Your task to perform on an android device: check google app version Image 0: 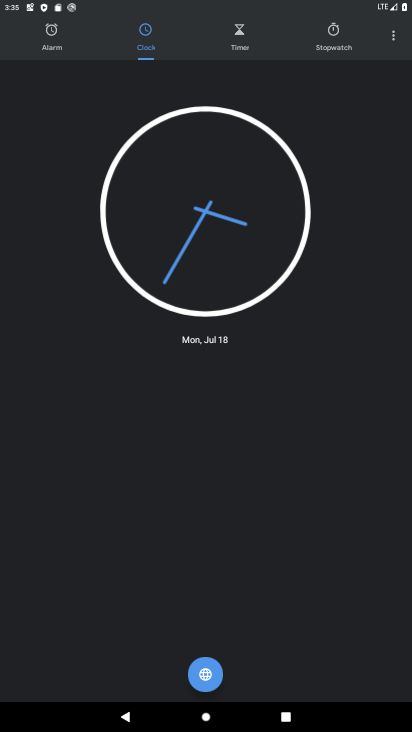
Step 0: press home button
Your task to perform on an android device: check google app version Image 1: 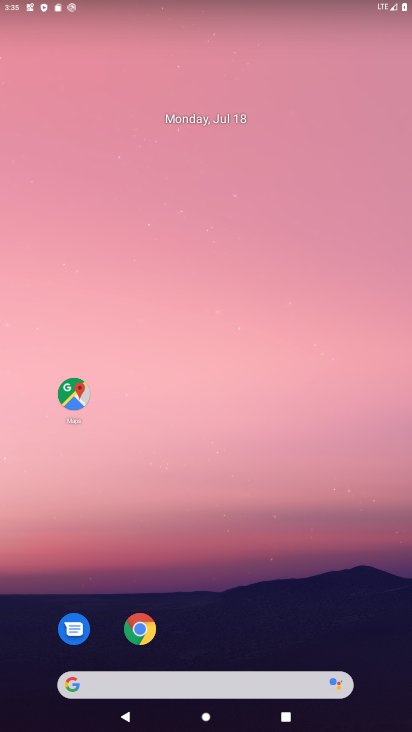
Step 1: drag from (212, 632) to (217, 161)
Your task to perform on an android device: check google app version Image 2: 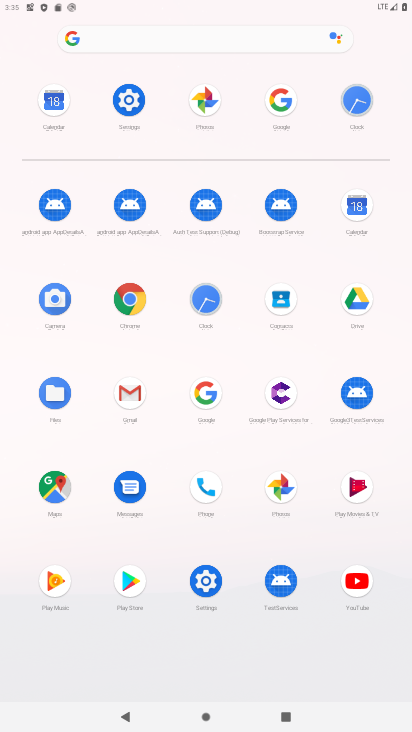
Step 2: click (280, 116)
Your task to perform on an android device: check google app version Image 3: 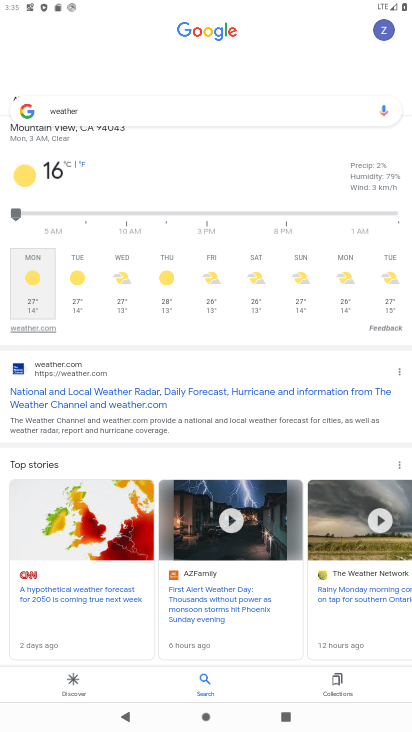
Step 3: click (379, 29)
Your task to perform on an android device: check google app version Image 4: 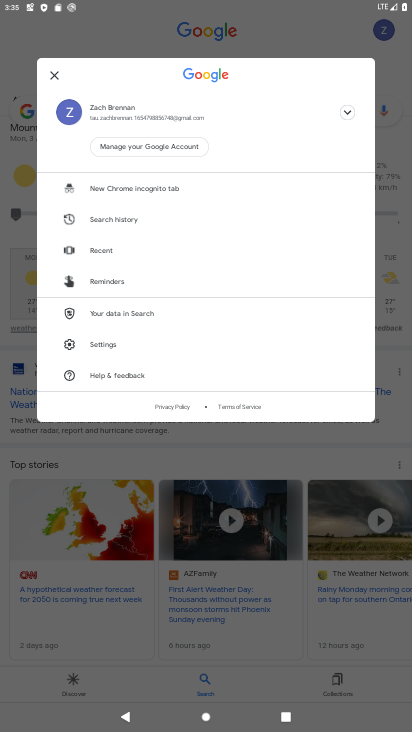
Step 4: click (94, 347)
Your task to perform on an android device: check google app version Image 5: 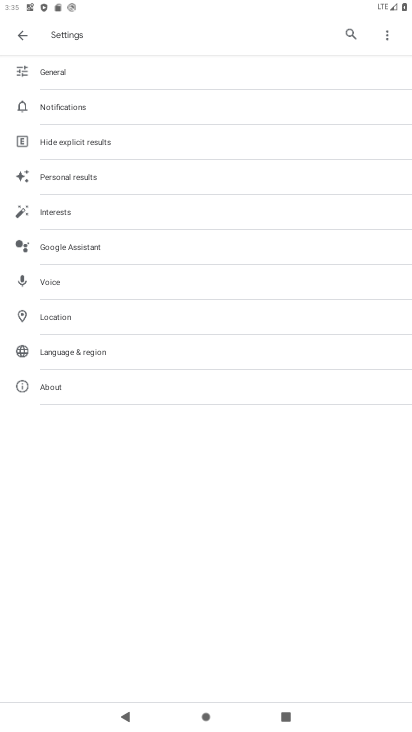
Step 5: click (102, 386)
Your task to perform on an android device: check google app version Image 6: 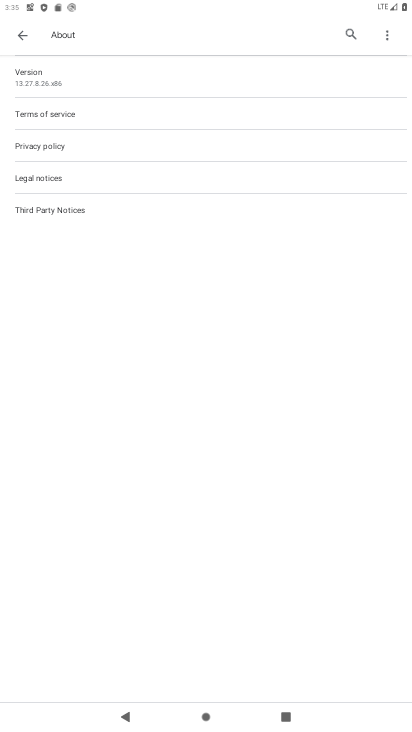
Step 6: click (108, 77)
Your task to perform on an android device: check google app version Image 7: 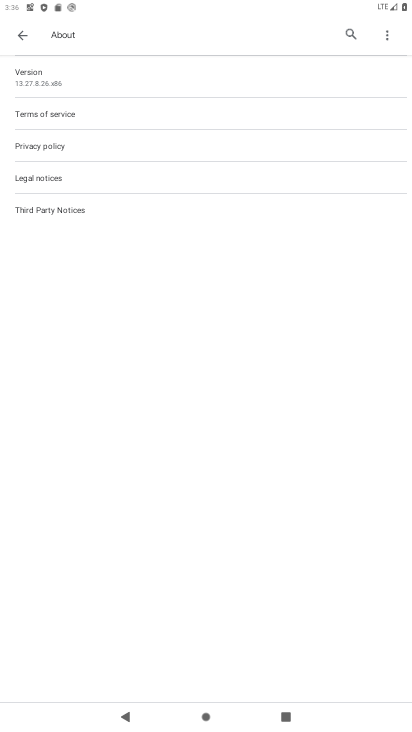
Step 7: click (108, 77)
Your task to perform on an android device: check google app version Image 8: 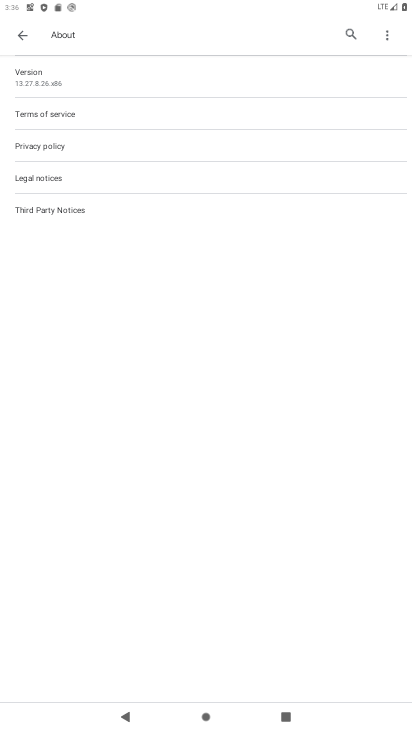
Step 8: task complete